Your task to perform on an android device: Open notification settings Image 0: 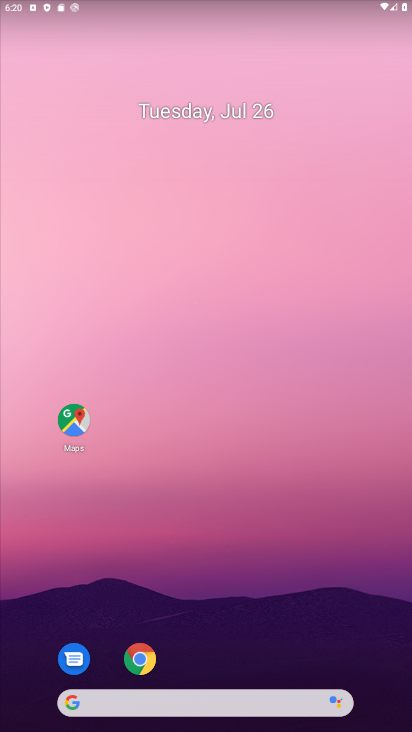
Step 0: drag from (315, 480) to (387, 185)
Your task to perform on an android device: Open notification settings Image 1: 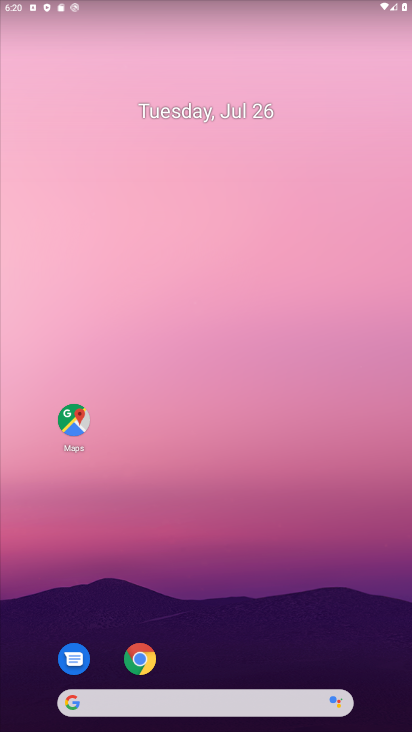
Step 1: drag from (262, 494) to (310, 111)
Your task to perform on an android device: Open notification settings Image 2: 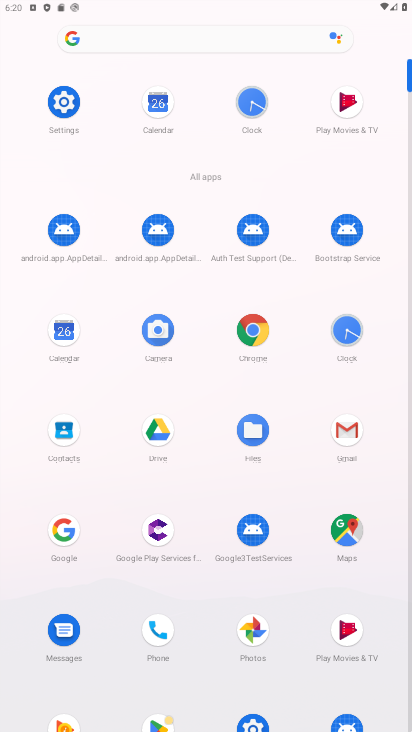
Step 2: click (69, 99)
Your task to perform on an android device: Open notification settings Image 3: 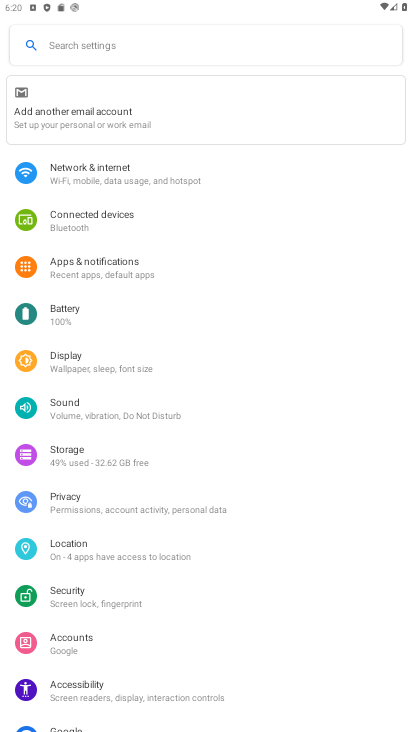
Step 3: task complete